Your task to perform on an android device: What's the weather today? Image 0: 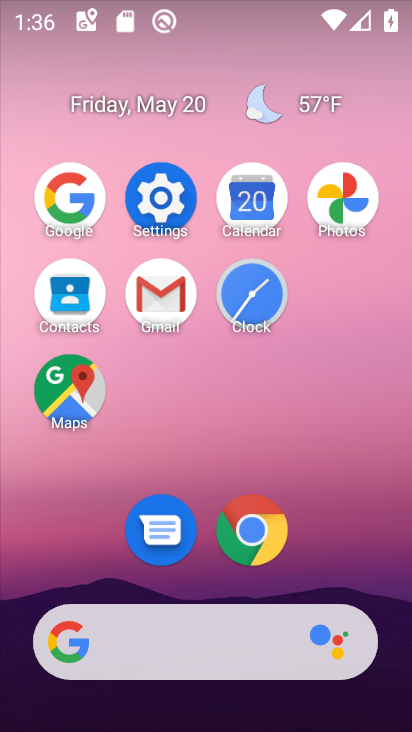
Step 0: click (83, 207)
Your task to perform on an android device: What's the weather today? Image 1: 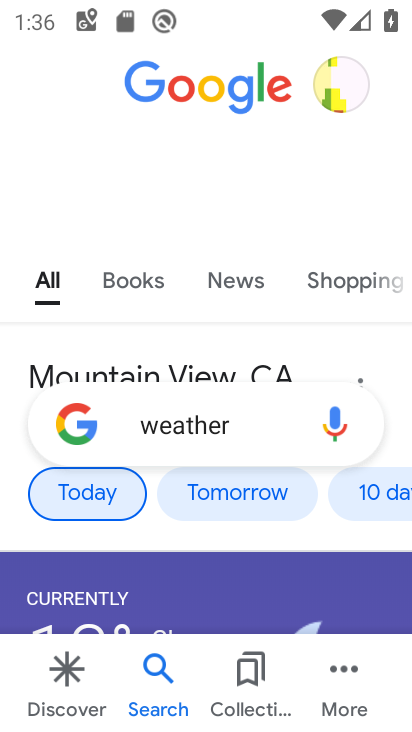
Step 1: task complete